Your task to perform on an android device: Do I have any events tomorrow? Image 0: 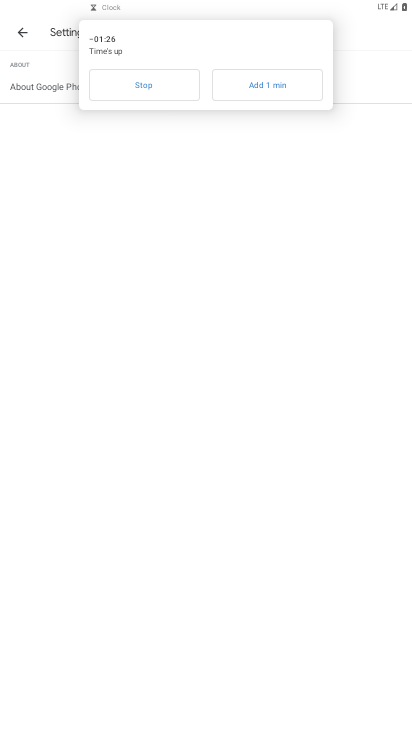
Step 0: press home button
Your task to perform on an android device: Do I have any events tomorrow? Image 1: 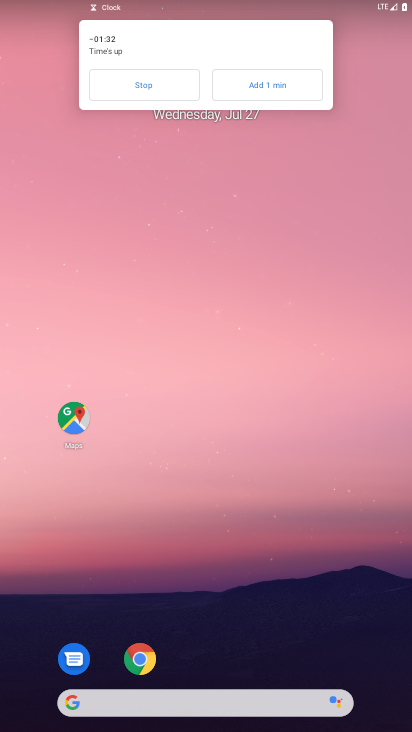
Step 1: drag from (203, 726) to (200, 0)
Your task to perform on an android device: Do I have any events tomorrow? Image 2: 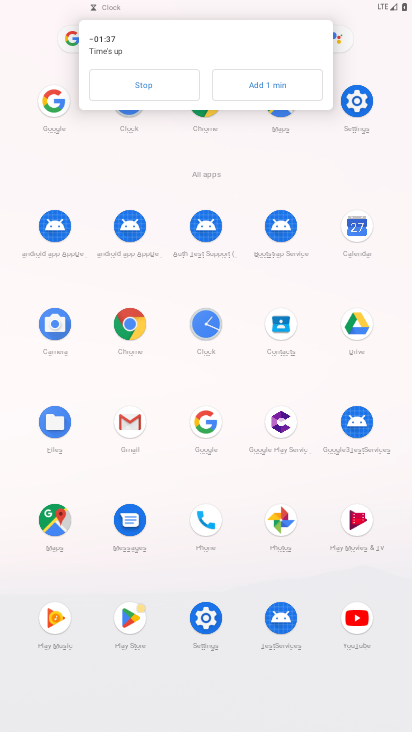
Step 2: click (354, 236)
Your task to perform on an android device: Do I have any events tomorrow? Image 3: 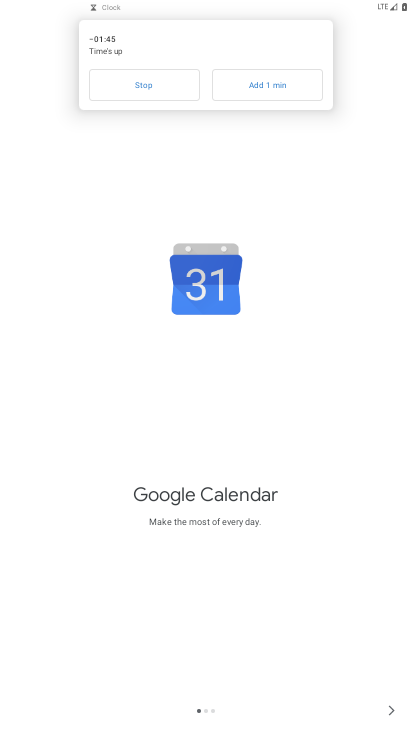
Step 3: click (394, 702)
Your task to perform on an android device: Do I have any events tomorrow? Image 4: 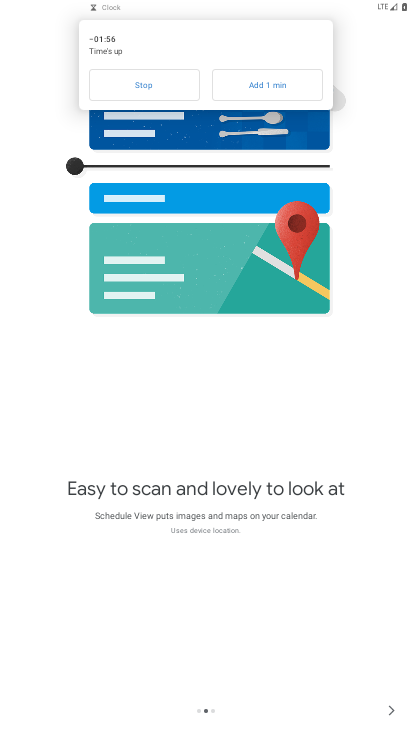
Step 4: click (387, 707)
Your task to perform on an android device: Do I have any events tomorrow? Image 5: 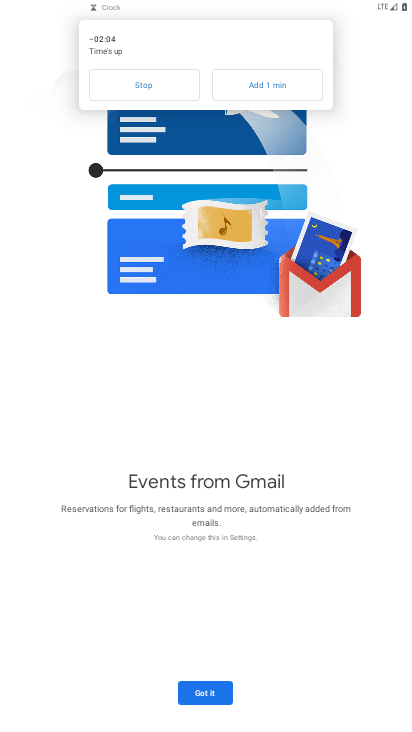
Step 5: click (218, 689)
Your task to perform on an android device: Do I have any events tomorrow? Image 6: 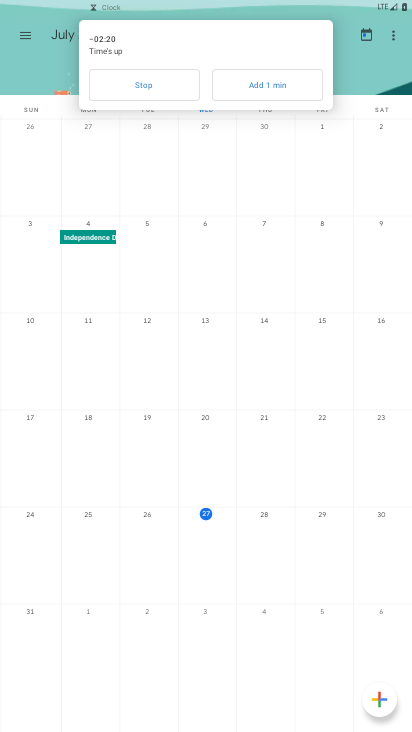
Step 6: click (22, 32)
Your task to perform on an android device: Do I have any events tomorrow? Image 7: 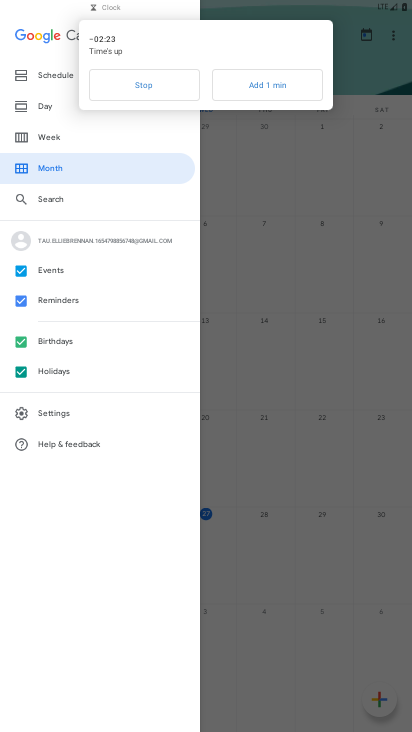
Step 7: click (16, 372)
Your task to perform on an android device: Do I have any events tomorrow? Image 8: 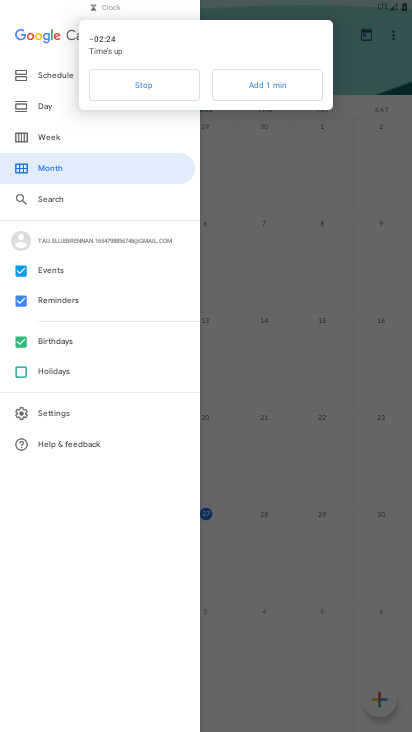
Step 8: click (25, 338)
Your task to perform on an android device: Do I have any events tomorrow? Image 9: 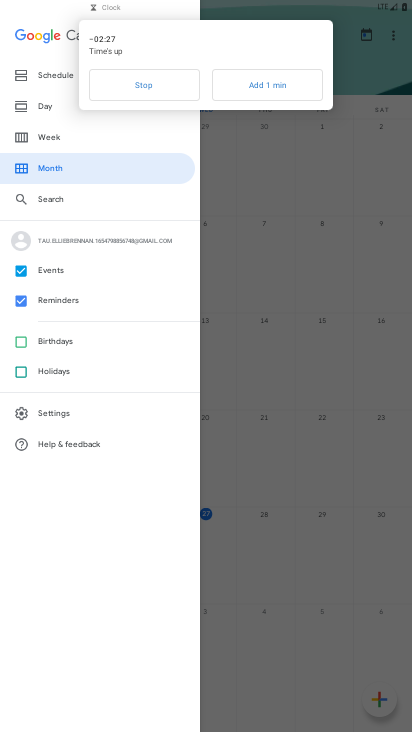
Step 9: click (20, 300)
Your task to perform on an android device: Do I have any events tomorrow? Image 10: 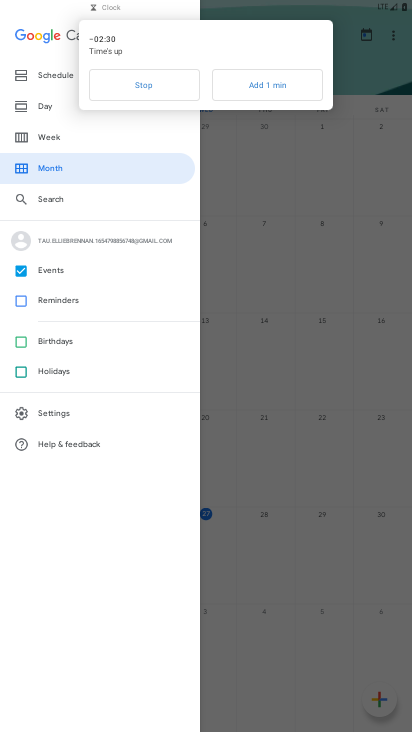
Step 10: click (340, 249)
Your task to perform on an android device: Do I have any events tomorrow? Image 11: 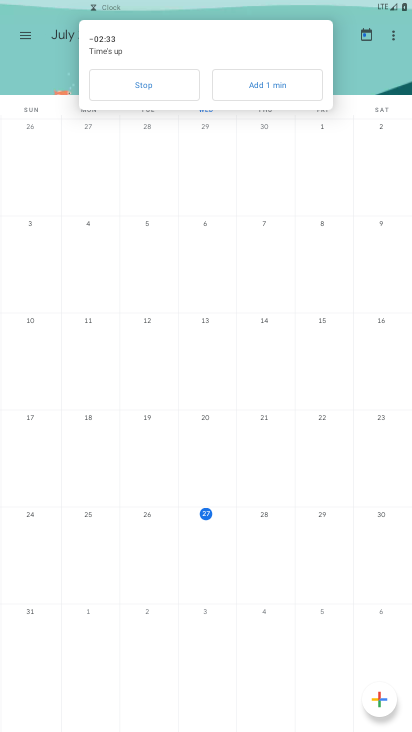
Step 11: click (265, 515)
Your task to perform on an android device: Do I have any events tomorrow? Image 12: 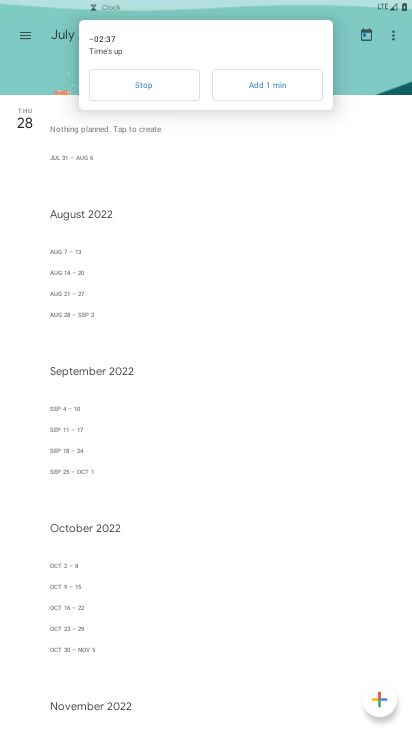
Step 12: task complete